Your task to perform on an android device: change alarm snooze length Image 0: 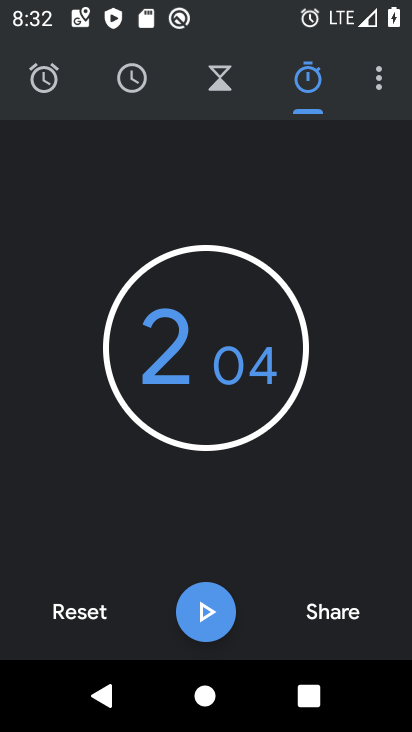
Step 0: click (378, 79)
Your task to perform on an android device: change alarm snooze length Image 1: 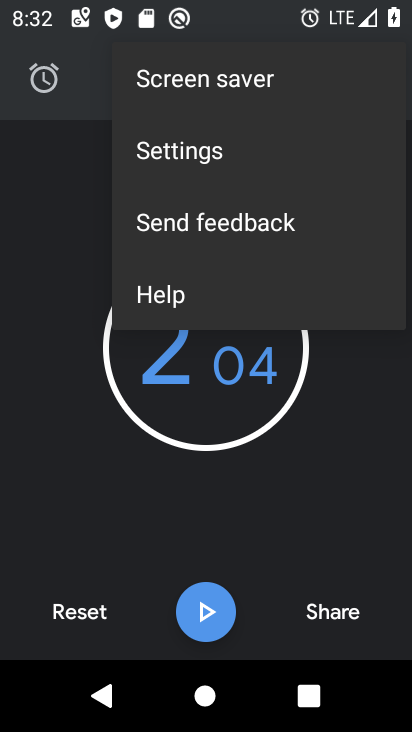
Step 1: click (152, 135)
Your task to perform on an android device: change alarm snooze length Image 2: 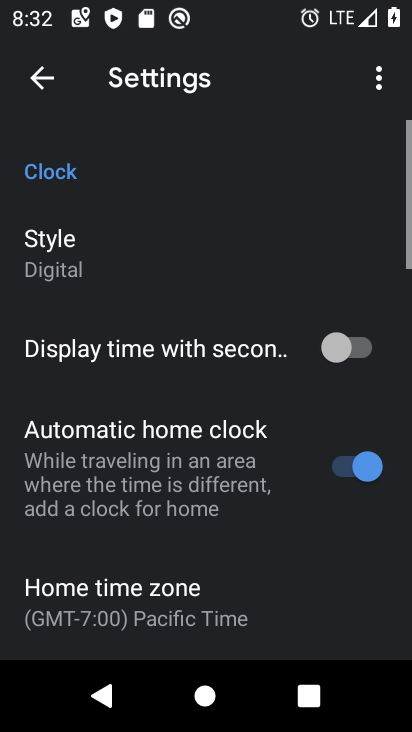
Step 2: drag from (129, 492) to (171, 156)
Your task to perform on an android device: change alarm snooze length Image 3: 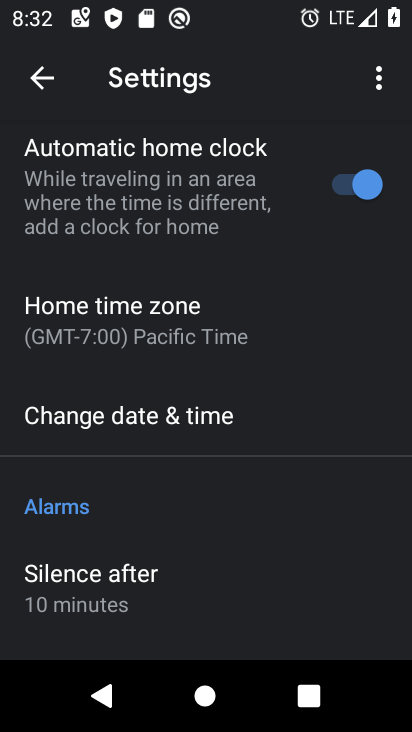
Step 3: drag from (153, 567) to (156, 132)
Your task to perform on an android device: change alarm snooze length Image 4: 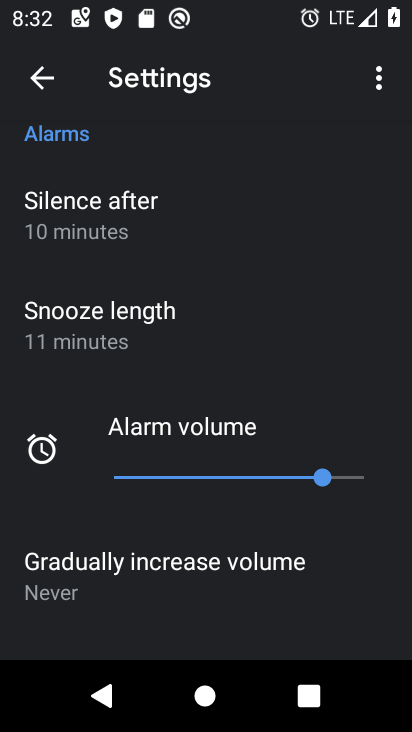
Step 4: click (67, 325)
Your task to perform on an android device: change alarm snooze length Image 5: 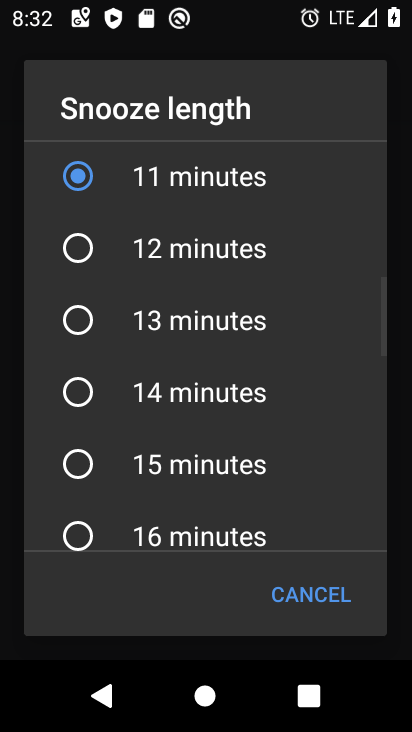
Step 5: drag from (148, 207) to (157, 451)
Your task to perform on an android device: change alarm snooze length Image 6: 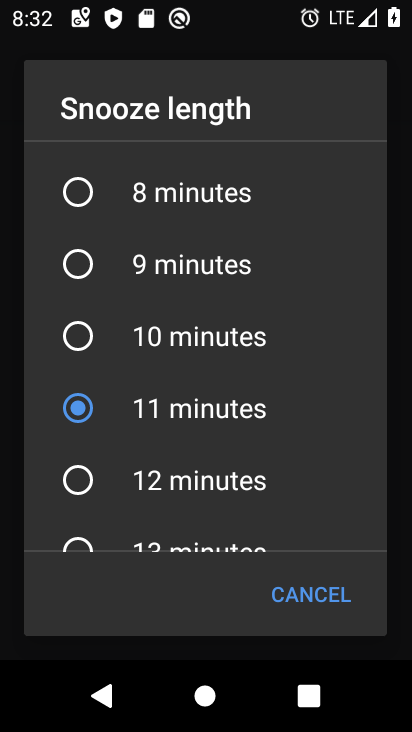
Step 6: click (77, 269)
Your task to perform on an android device: change alarm snooze length Image 7: 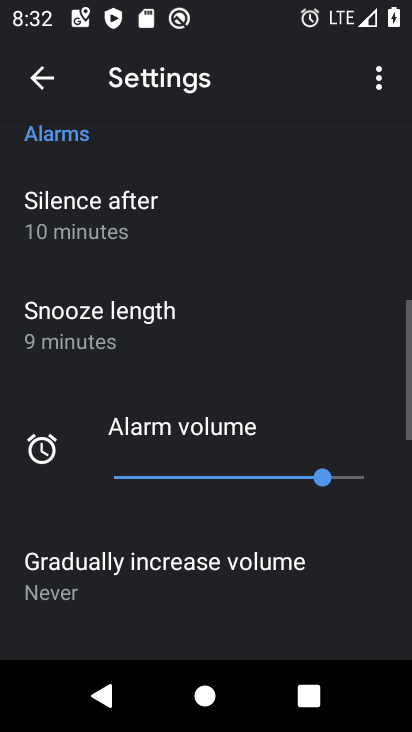
Step 7: task complete